Your task to perform on an android device: Go to notification settings Image 0: 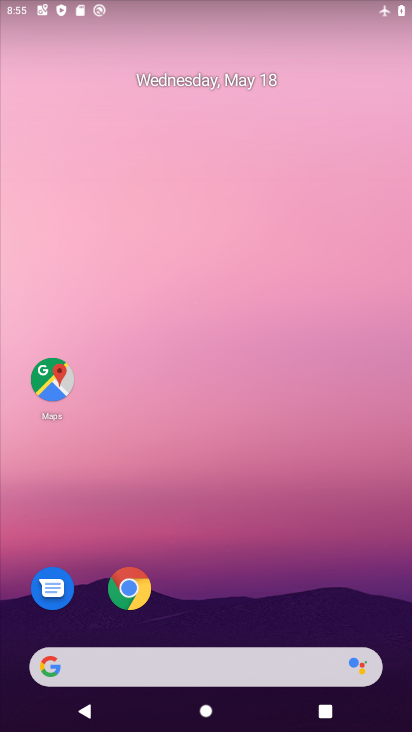
Step 0: drag from (290, 630) to (258, 16)
Your task to perform on an android device: Go to notification settings Image 1: 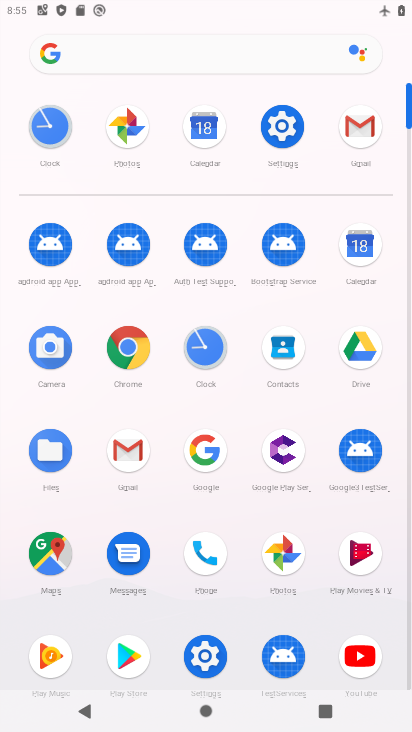
Step 1: click (279, 118)
Your task to perform on an android device: Go to notification settings Image 2: 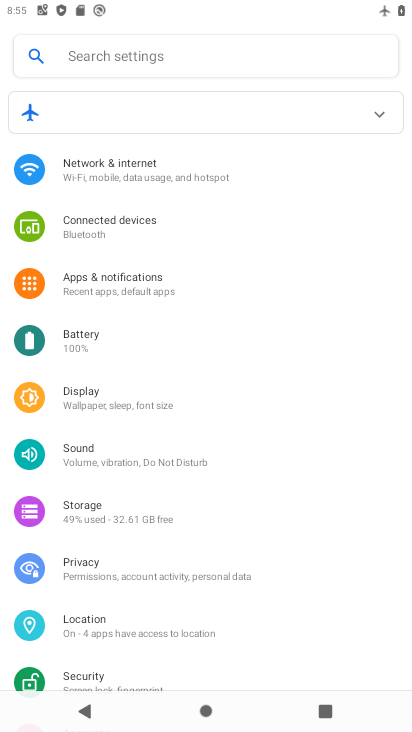
Step 2: click (161, 284)
Your task to perform on an android device: Go to notification settings Image 3: 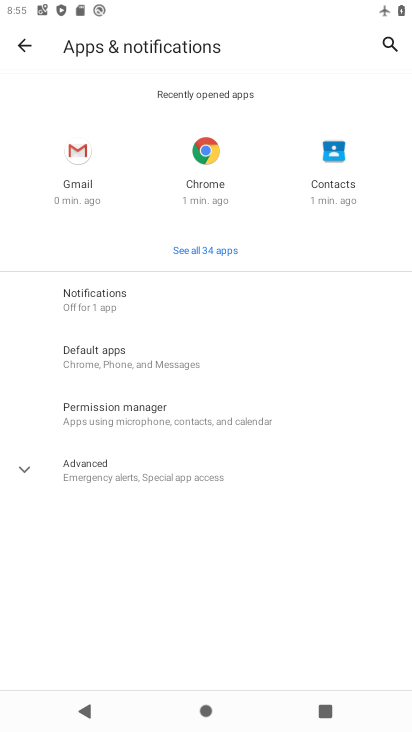
Step 3: task complete